Your task to perform on an android device: View the shopping cart on ebay. Search for "logitech g910" on ebay, select the first entry, and add it to the cart. Image 0: 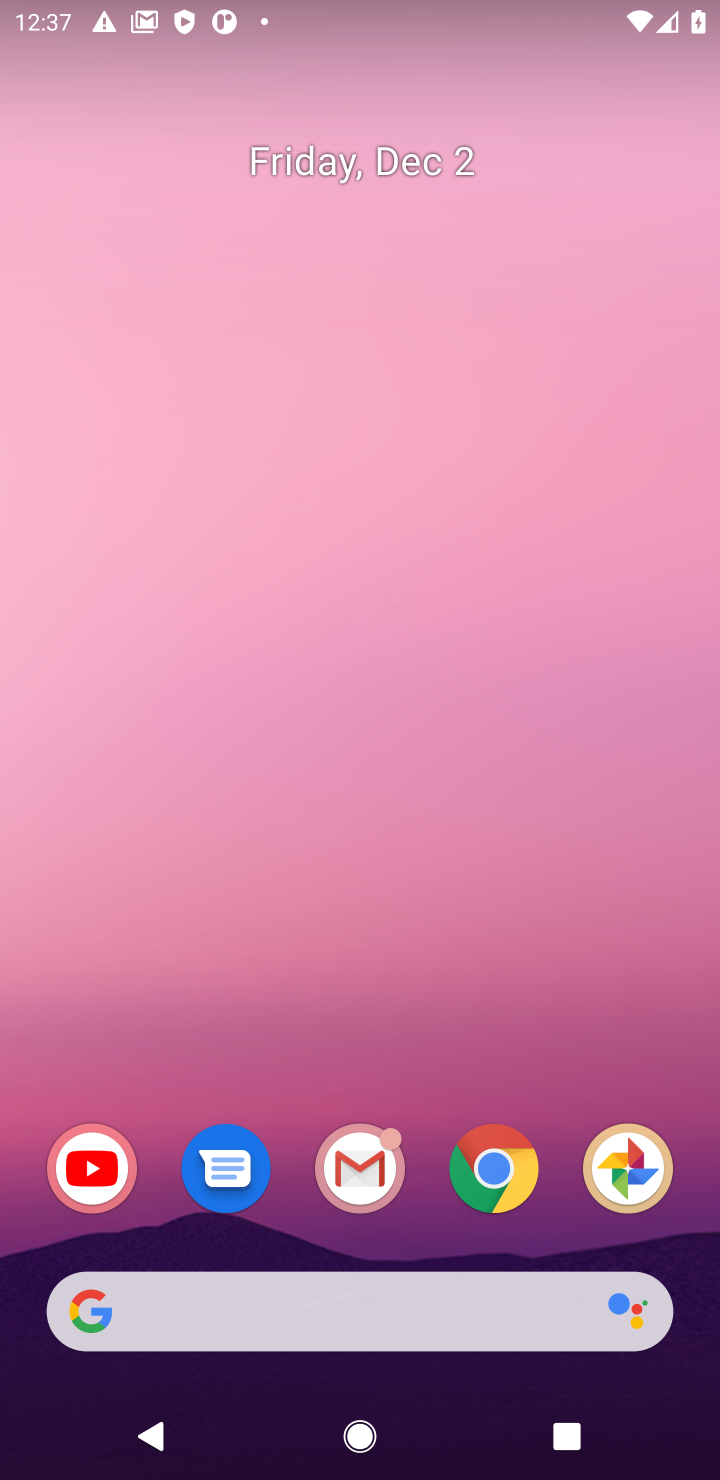
Step 0: click (504, 1175)
Your task to perform on an android device: View the shopping cart on ebay. Search for "logitech g910" on ebay, select the first entry, and add it to the cart. Image 1: 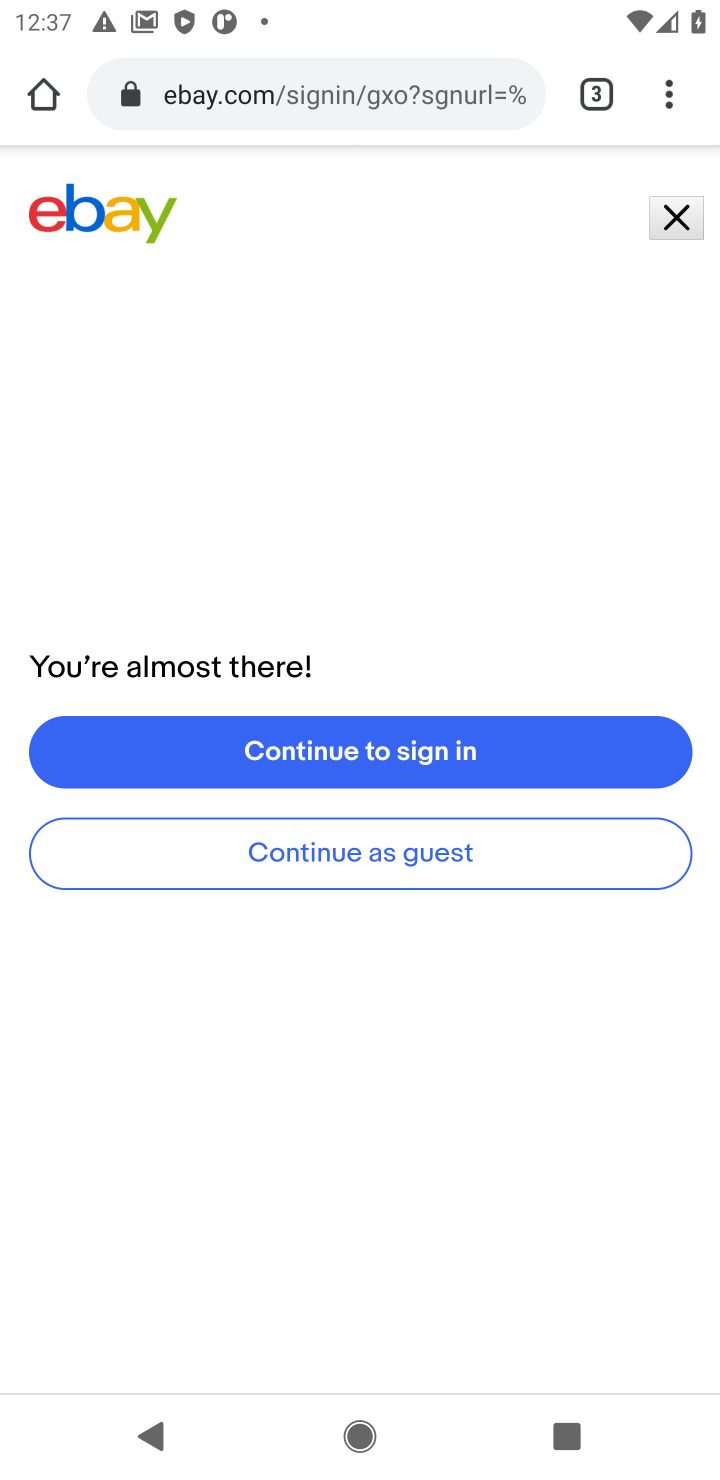
Step 1: click (685, 214)
Your task to perform on an android device: View the shopping cart on ebay. Search for "logitech g910" on ebay, select the first entry, and add it to the cart. Image 2: 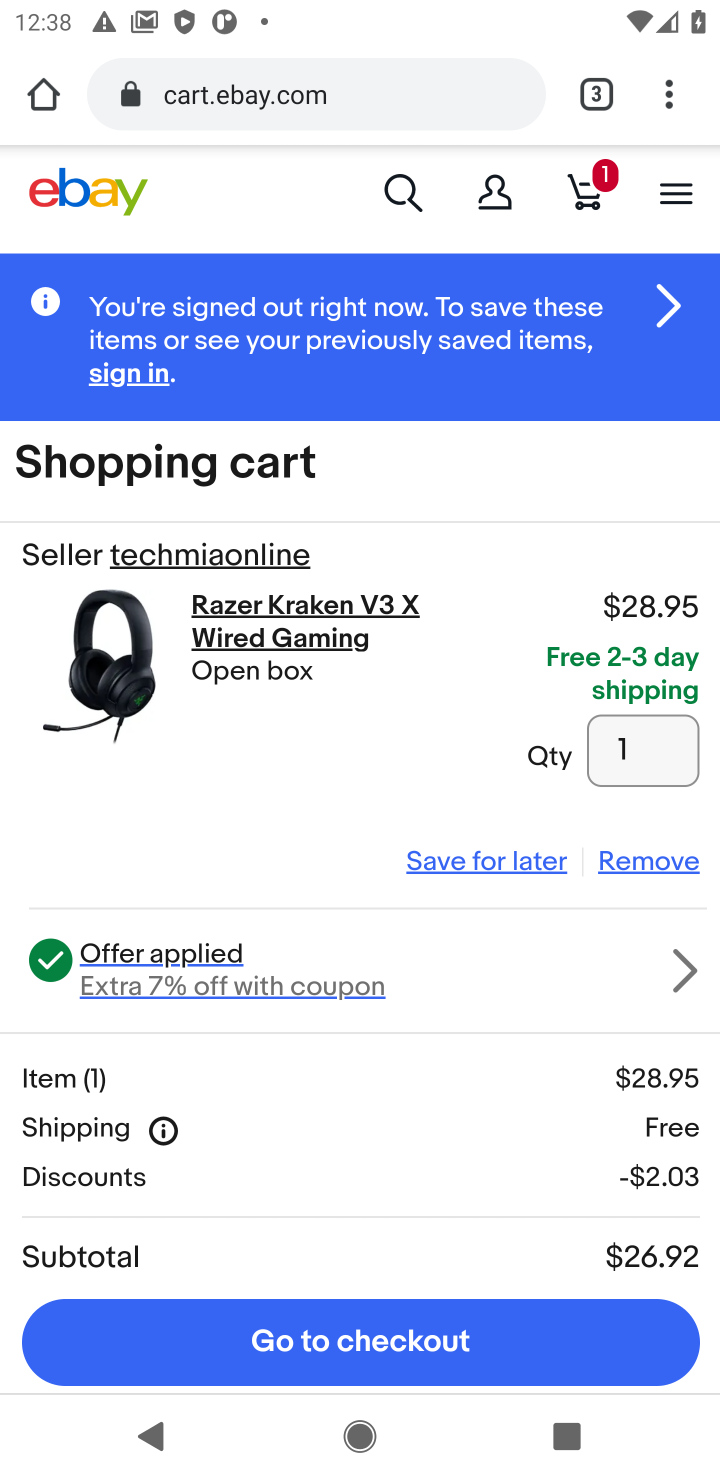
Step 2: click (389, 186)
Your task to perform on an android device: View the shopping cart on ebay. Search for "logitech g910" on ebay, select the first entry, and add it to the cart. Image 3: 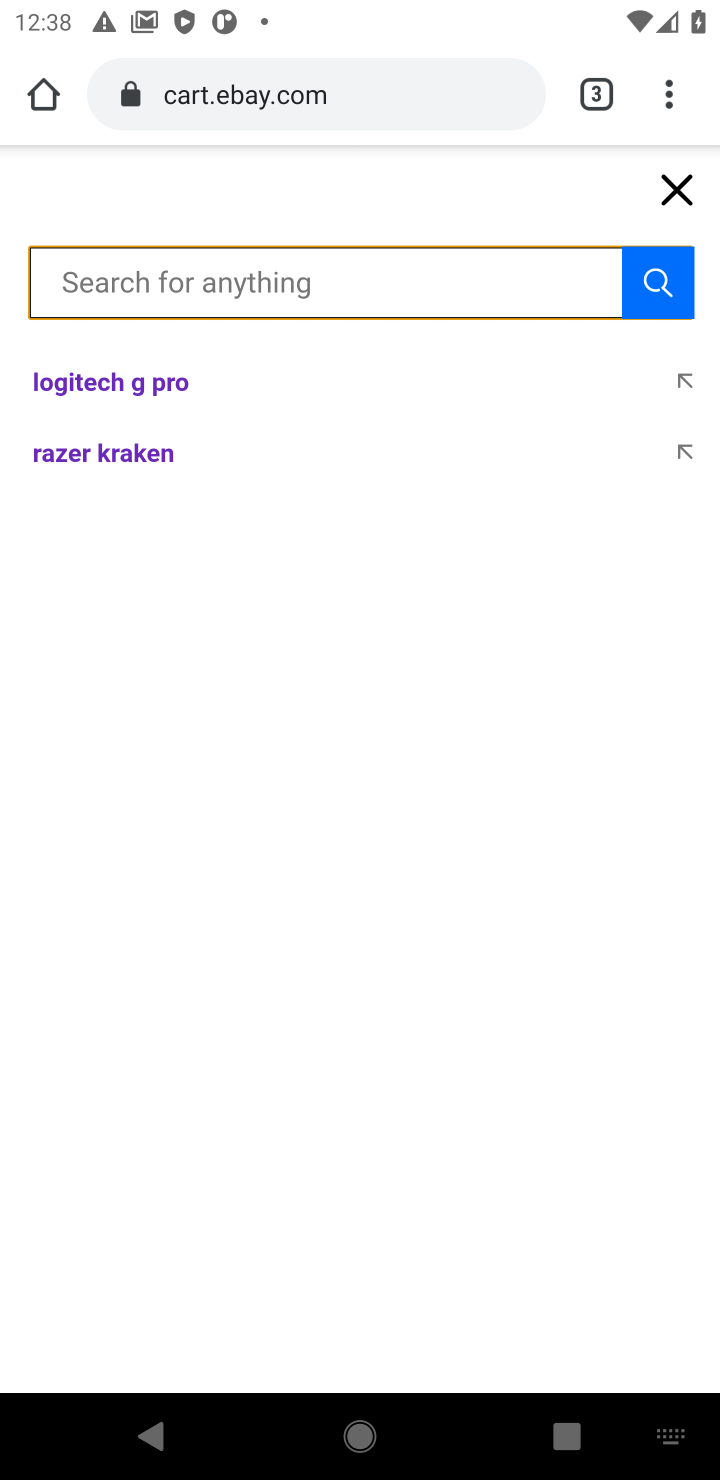
Step 3: type "logitech g910"
Your task to perform on an android device: View the shopping cart on ebay. Search for "logitech g910" on ebay, select the first entry, and add it to the cart. Image 4: 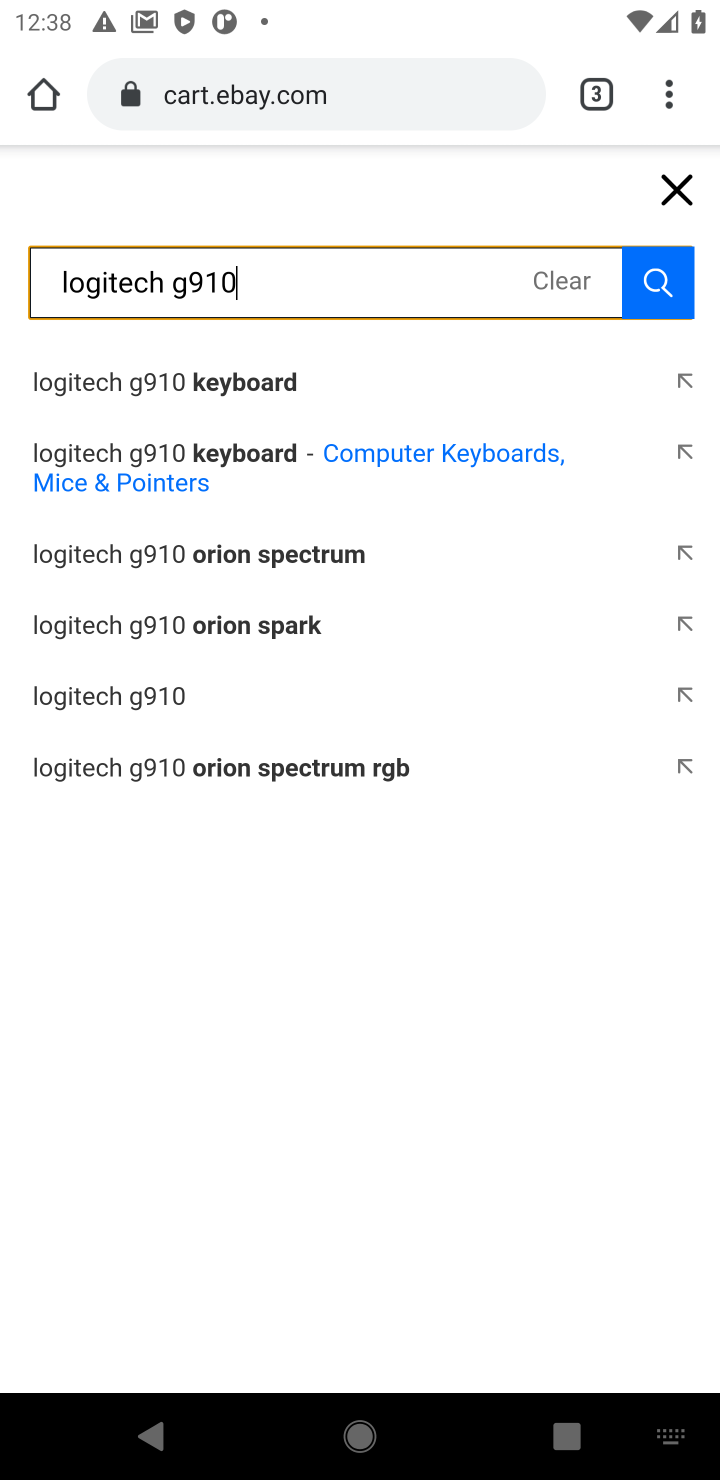
Step 4: click (655, 276)
Your task to perform on an android device: View the shopping cart on ebay. Search for "logitech g910" on ebay, select the first entry, and add it to the cart. Image 5: 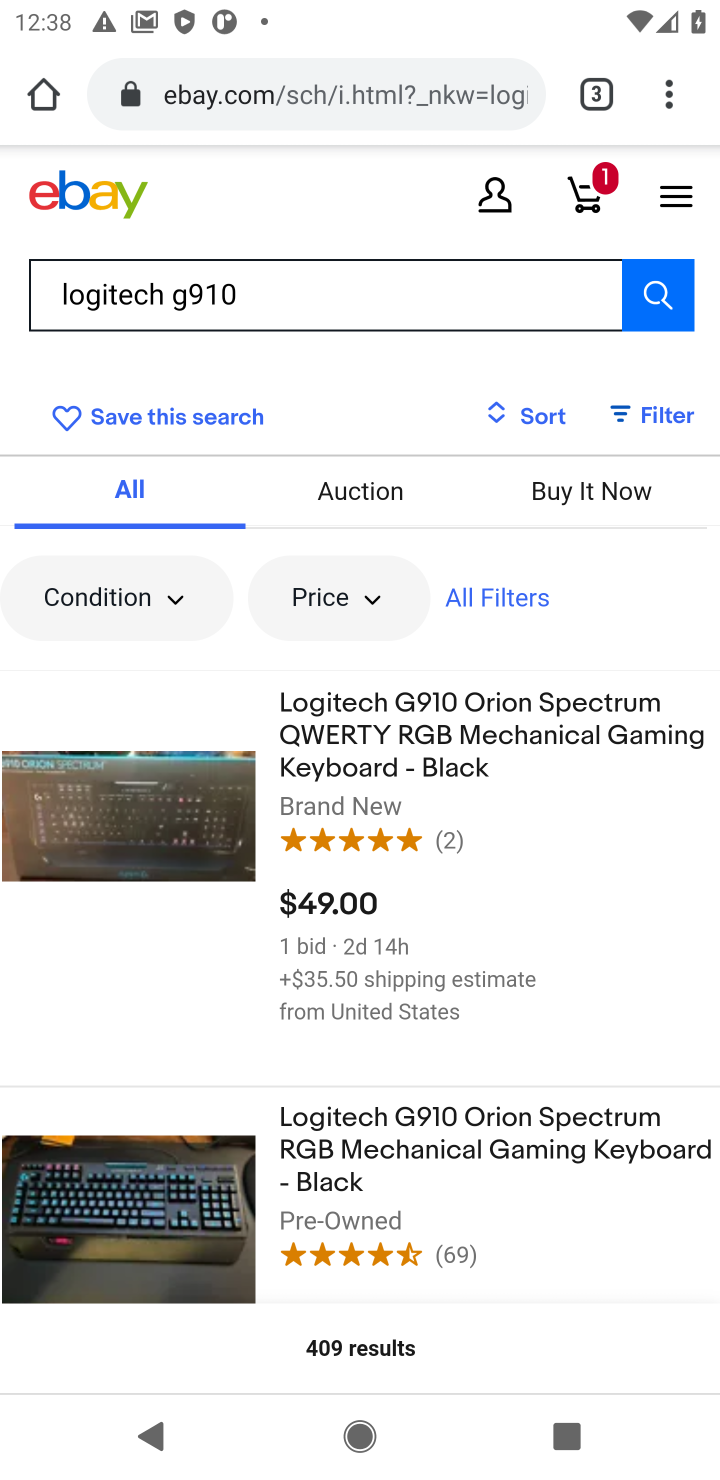
Step 5: click (485, 717)
Your task to perform on an android device: View the shopping cart on ebay. Search for "logitech g910" on ebay, select the first entry, and add it to the cart. Image 6: 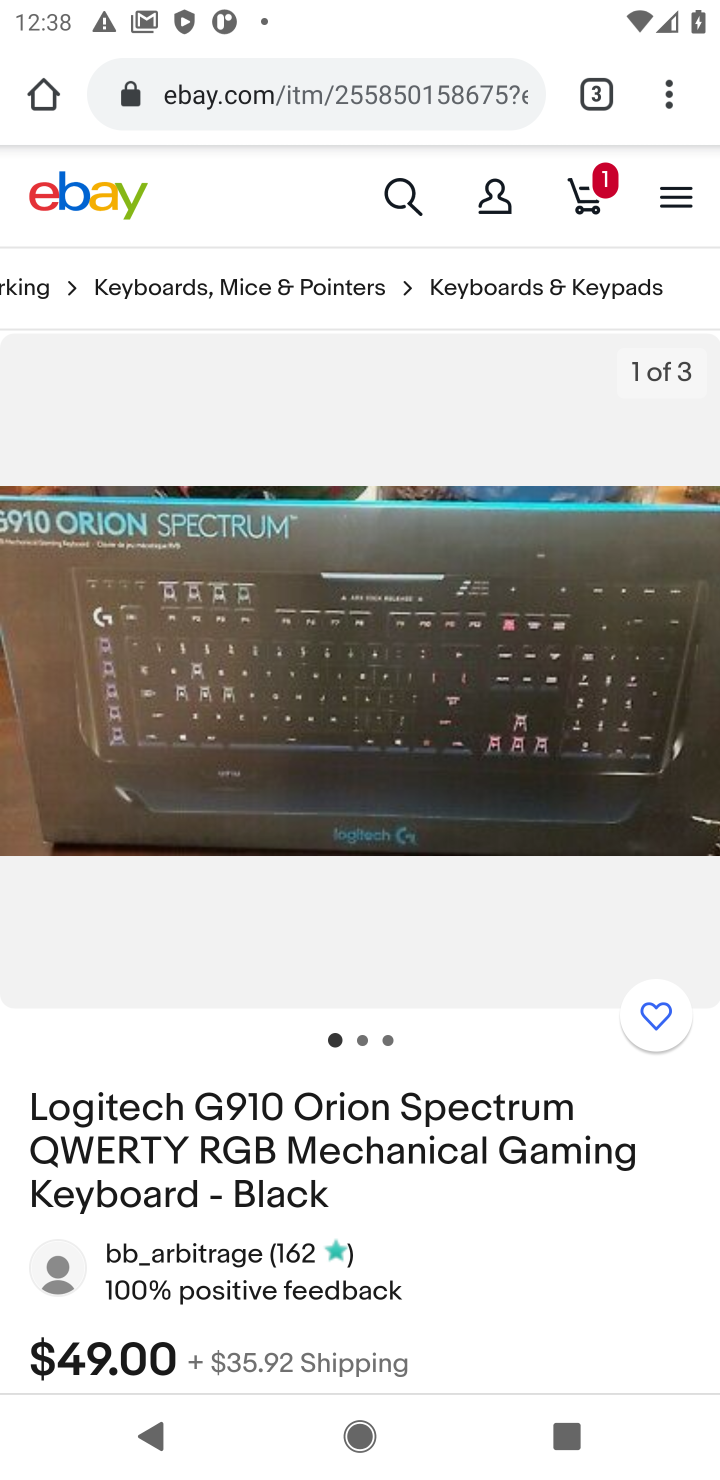
Step 6: task complete